Your task to perform on an android device: What's the weather going to be this weekend? Image 0: 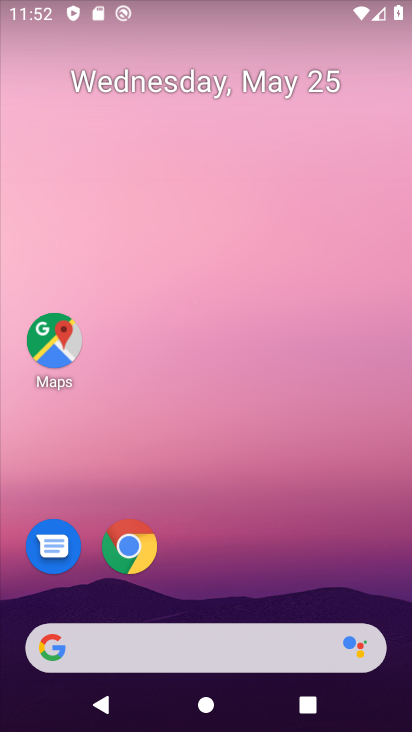
Step 0: click (269, 671)
Your task to perform on an android device: What's the weather going to be this weekend? Image 1: 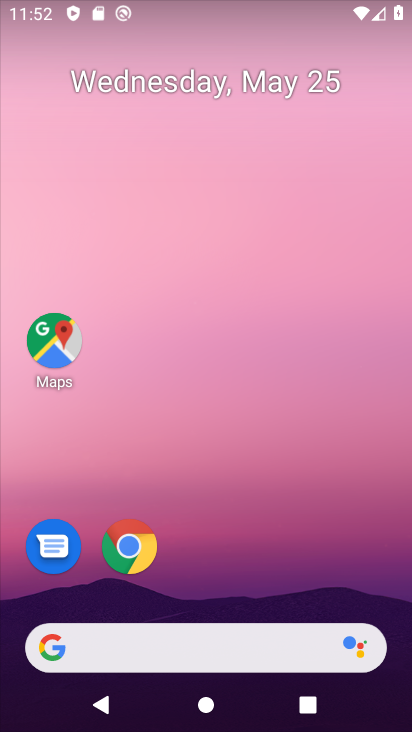
Step 1: click (295, 636)
Your task to perform on an android device: What's the weather going to be this weekend? Image 2: 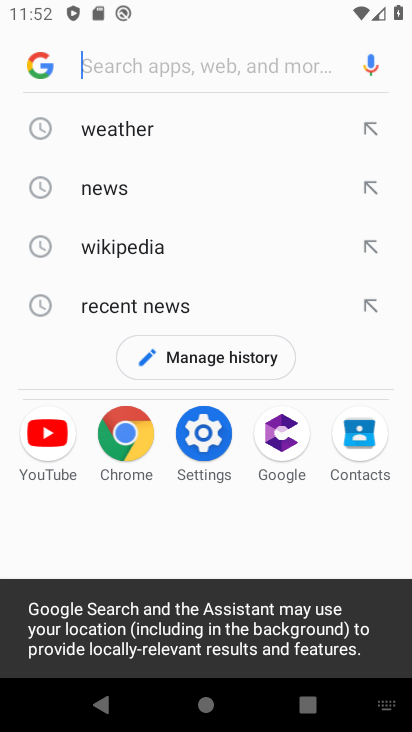
Step 2: type "What's the weather going to be this weekend?"
Your task to perform on an android device: What's the weather going to be this weekend? Image 3: 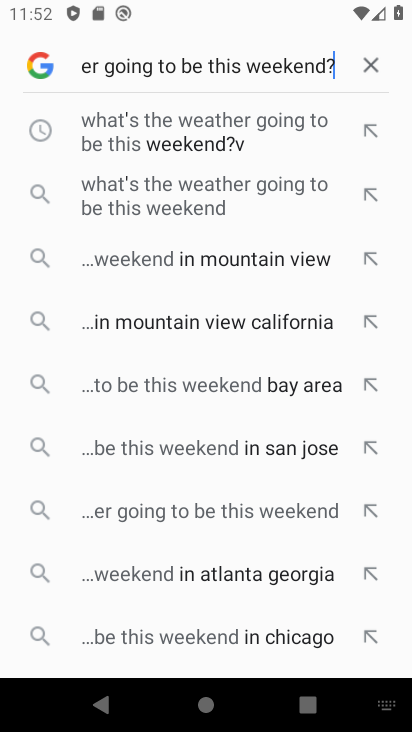
Step 3: task complete